Your task to perform on an android device: add a contact in the contacts app Image 0: 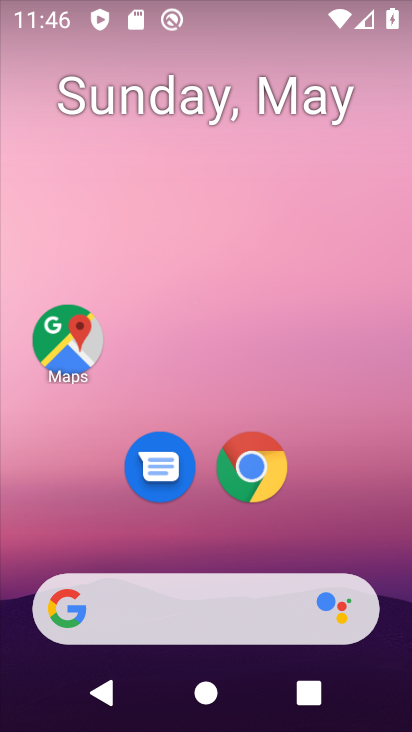
Step 0: drag from (247, 576) to (174, 10)
Your task to perform on an android device: add a contact in the contacts app Image 1: 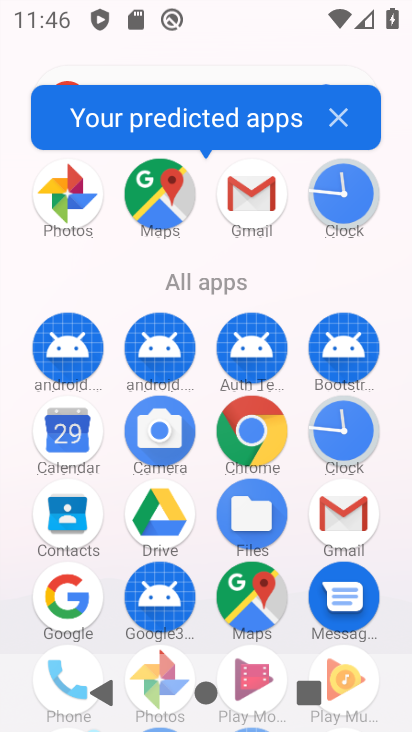
Step 1: click (65, 518)
Your task to perform on an android device: add a contact in the contacts app Image 2: 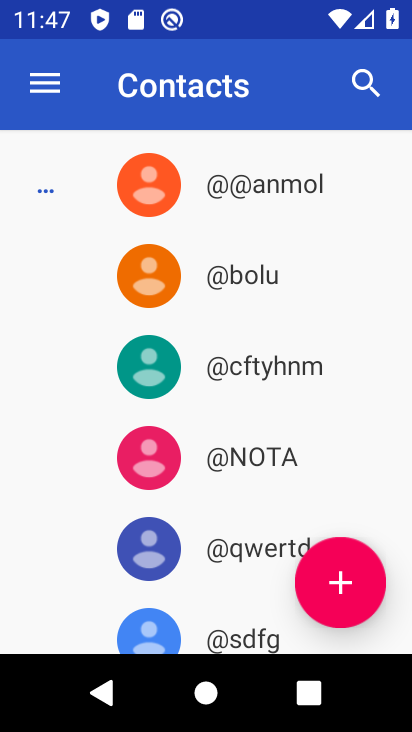
Step 2: click (346, 595)
Your task to perform on an android device: add a contact in the contacts app Image 3: 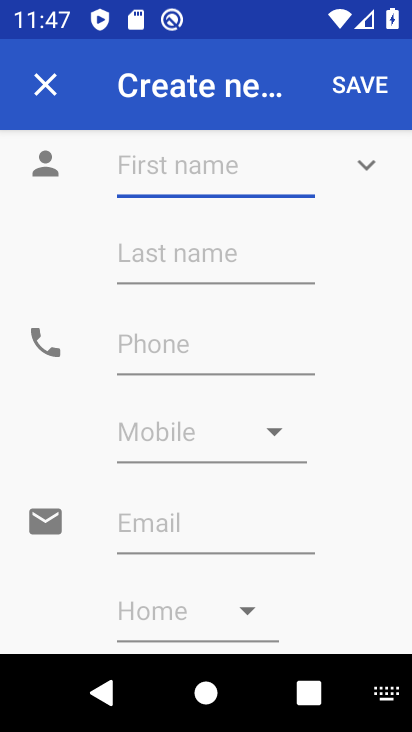
Step 3: click (159, 129)
Your task to perform on an android device: add a contact in the contacts app Image 4: 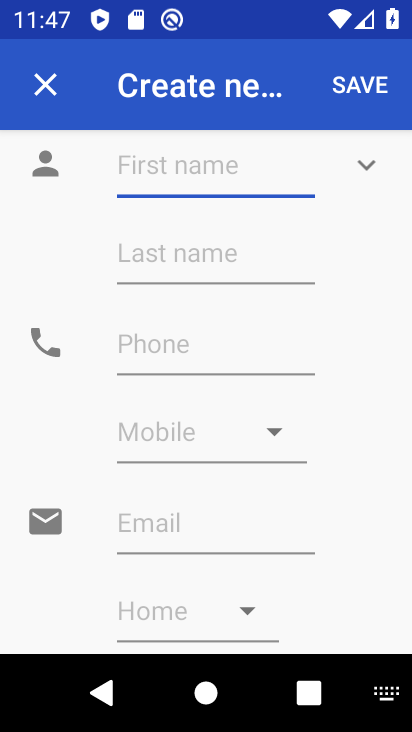
Step 4: click (232, 181)
Your task to perform on an android device: add a contact in the contacts app Image 5: 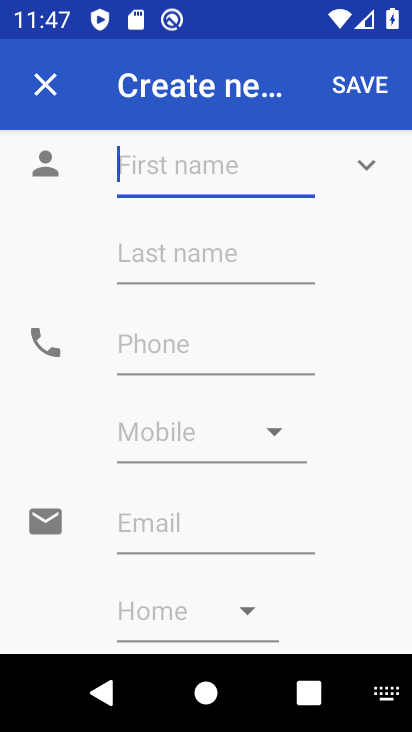
Step 5: type "nitin"
Your task to perform on an android device: add a contact in the contacts app Image 6: 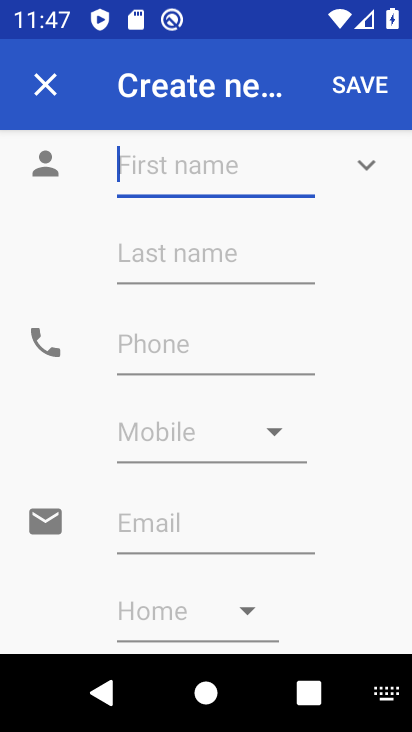
Step 6: click (175, 271)
Your task to perform on an android device: add a contact in the contacts app Image 7: 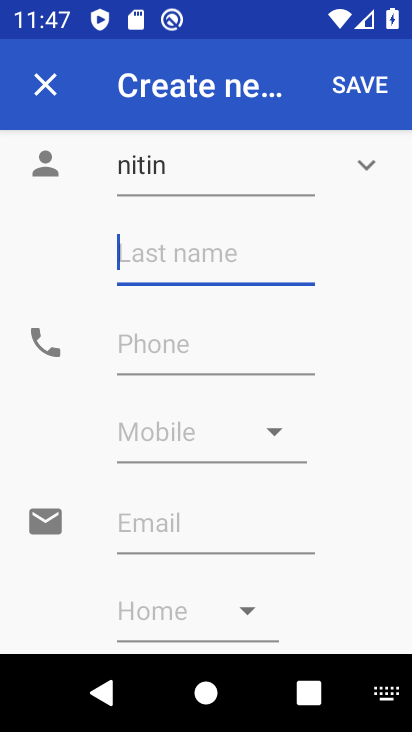
Step 7: type "sharma"
Your task to perform on an android device: add a contact in the contacts app Image 8: 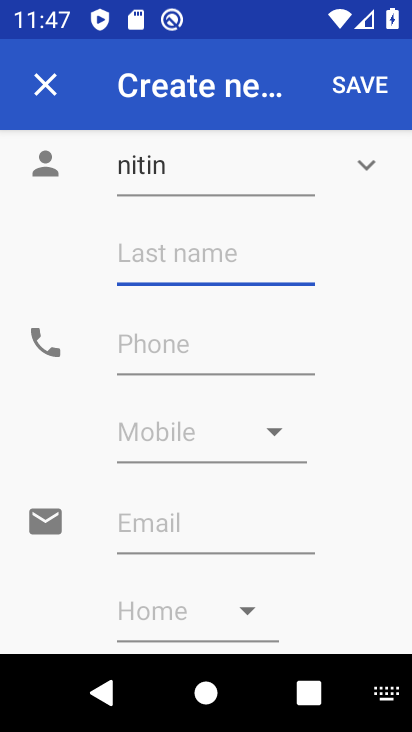
Step 8: click (202, 337)
Your task to perform on an android device: add a contact in the contacts app Image 9: 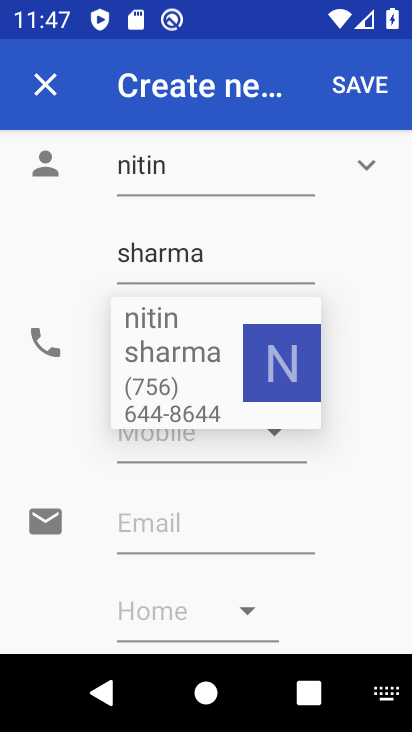
Step 9: type "6767767667"
Your task to perform on an android device: add a contact in the contacts app Image 10: 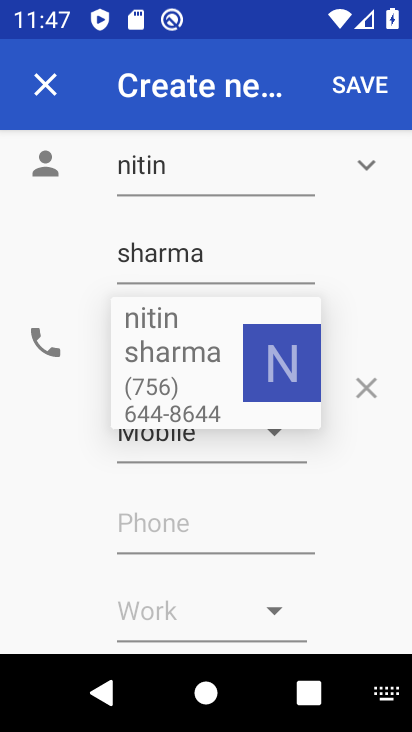
Step 10: drag from (110, 181) to (64, 141)
Your task to perform on an android device: add a contact in the contacts app Image 11: 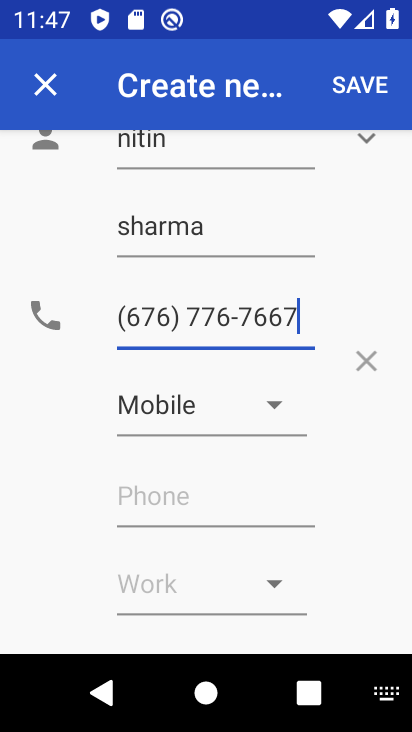
Step 11: click (387, 112)
Your task to perform on an android device: add a contact in the contacts app Image 12: 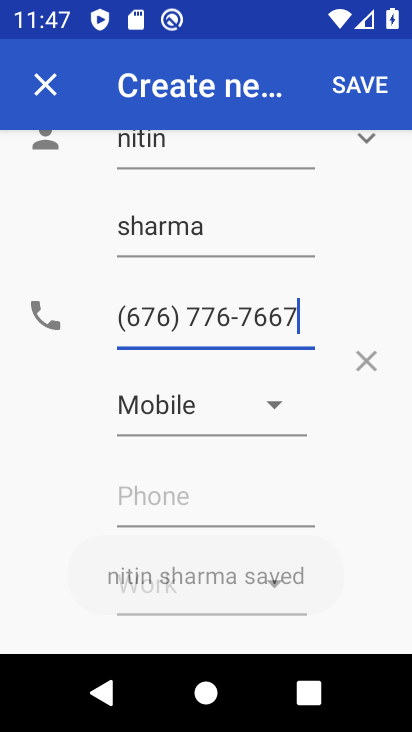
Step 12: click (357, 85)
Your task to perform on an android device: add a contact in the contacts app Image 13: 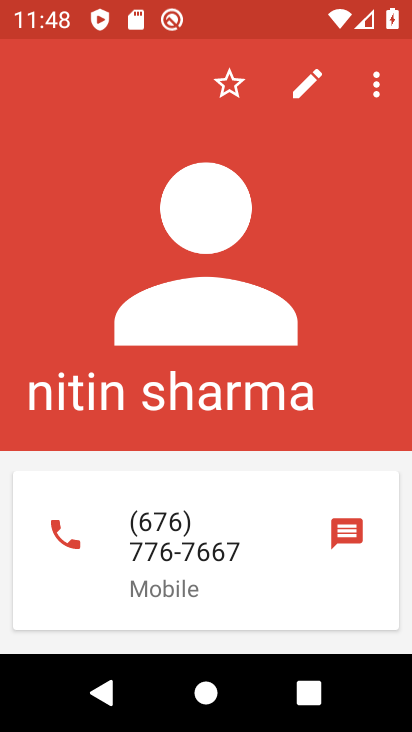
Step 13: task complete